Your task to perform on an android device: turn vacation reply on in the gmail app Image 0: 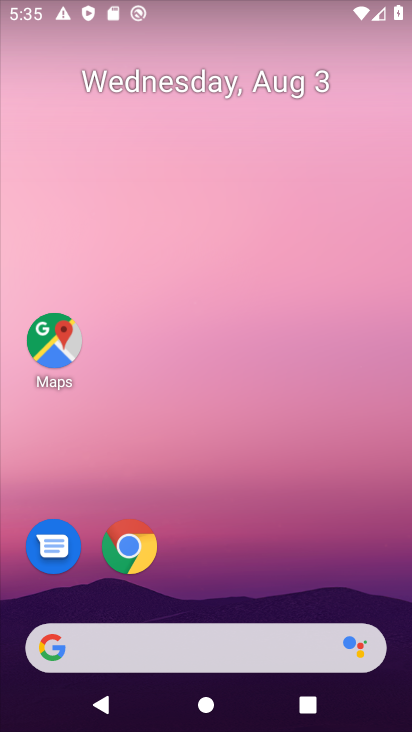
Step 0: press home button
Your task to perform on an android device: turn vacation reply on in the gmail app Image 1: 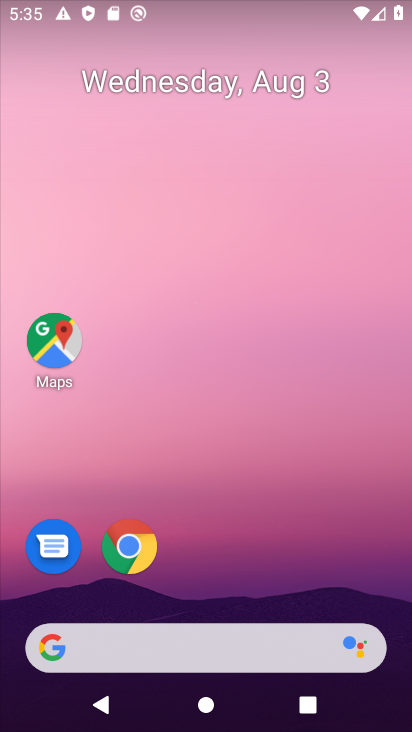
Step 1: drag from (305, 450) to (382, 56)
Your task to perform on an android device: turn vacation reply on in the gmail app Image 2: 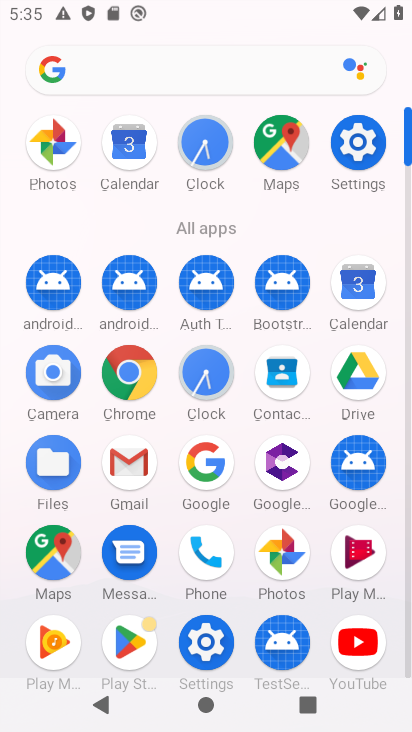
Step 2: click (121, 456)
Your task to perform on an android device: turn vacation reply on in the gmail app Image 3: 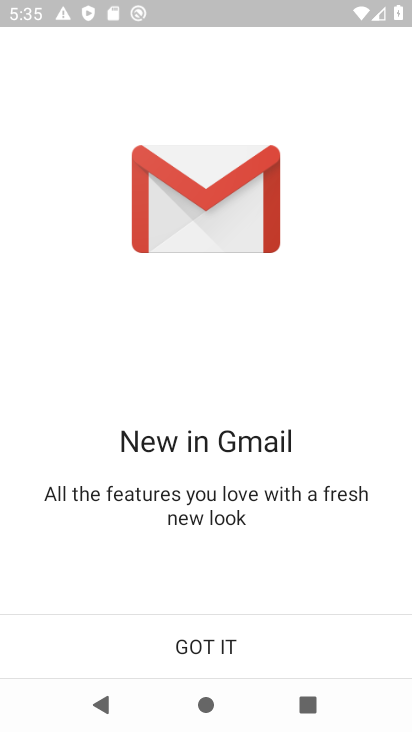
Step 3: click (152, 645)
Your task to perform on an android device: turn vacation reply on in the gmail app Image 4: 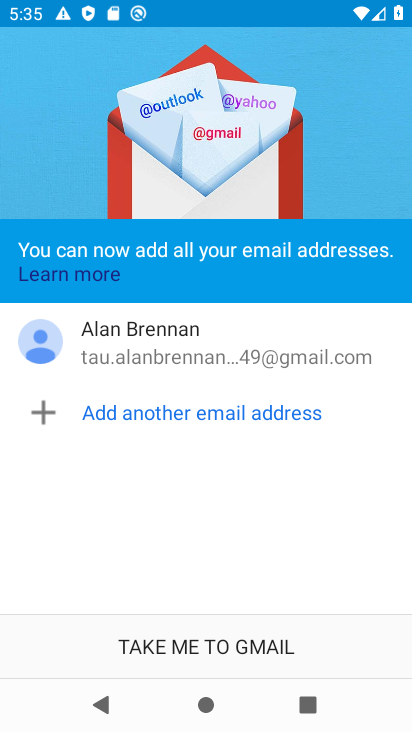
Step 4: click (152, 645)
Your task to perform on an android device: turn vacation reply on in the gmail app Image 5: 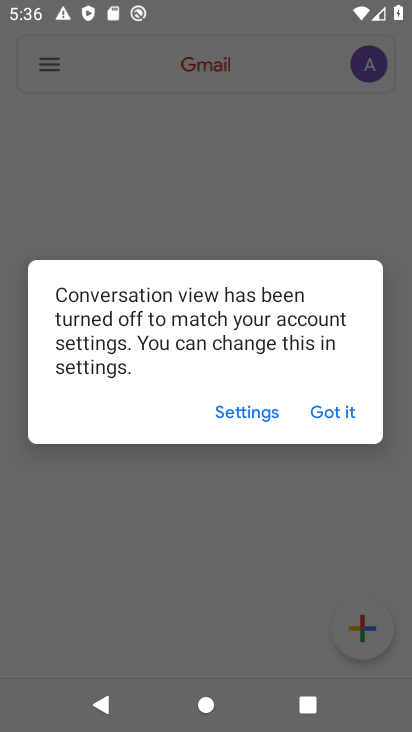
Step 5: click (348, 416)
Your task to perform on an android device: turn vacation reply on in the gmail app Image 6: 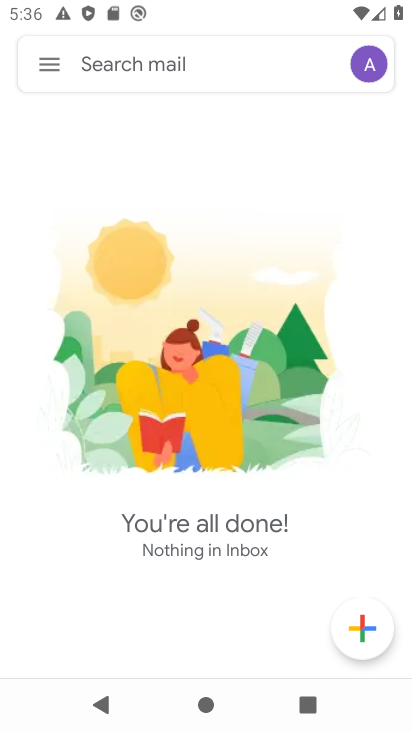
Step 6: click (40, 69)
Your task to perform on an android device: turn vacation reply on in the gmail app Image 7: 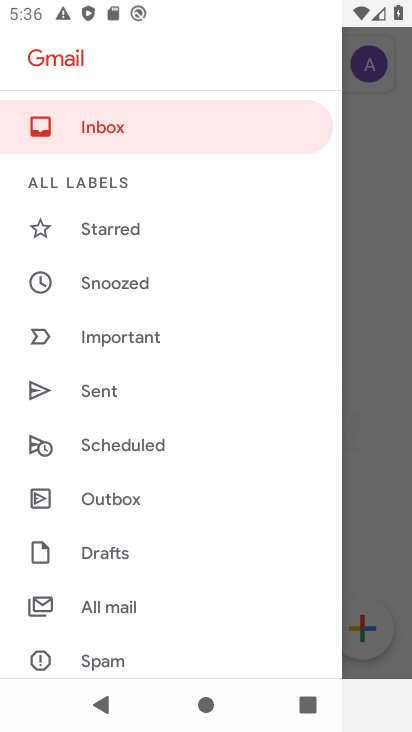
Step 7: drag from (208, 651) to (242, 475)
Your task to perform on an android device: turn vacation reply on in the gmail app Image 8: 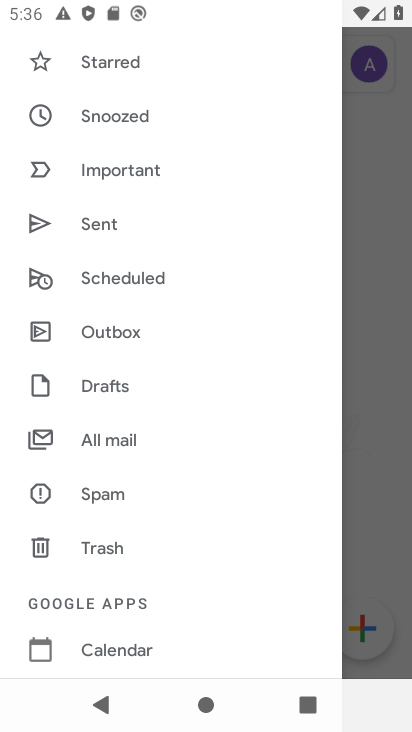
Step 8: drag from (202, 646) to (271, 233)
Your task to perform on an android device: turn vacation reply on in the gmail app Image 9: 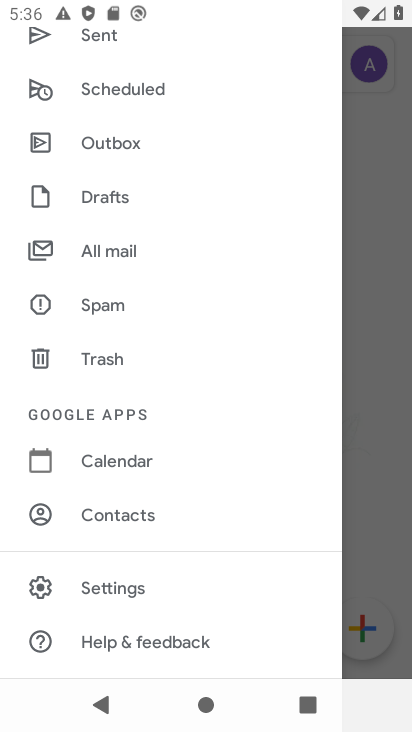
Step 9: click (93, 589)
Your task to perform on an android device: turn vacation reply on in the gmail app Image 10: 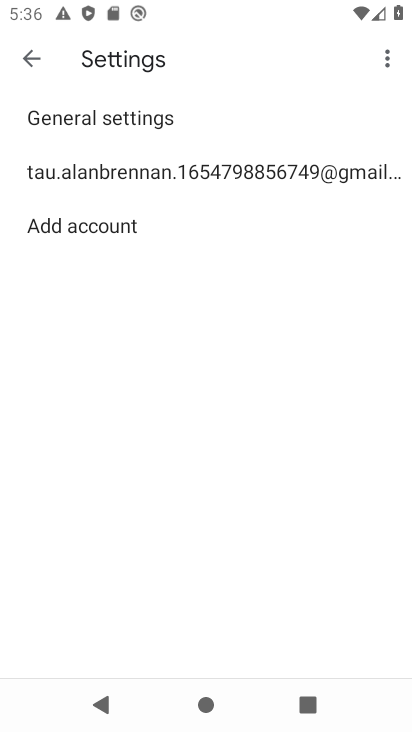
Step 10: click (186, 174)
Your task to perform on an android device: turn vacation reply on in the gmail app Image 11: 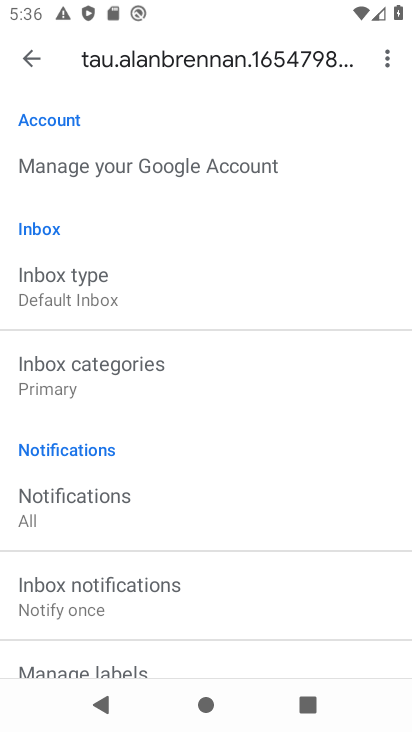
Step 11: drag from (288, 632) to (343, 168)
Your task to perform on an android device: turn vacation reply on in the gmail app Image 12: 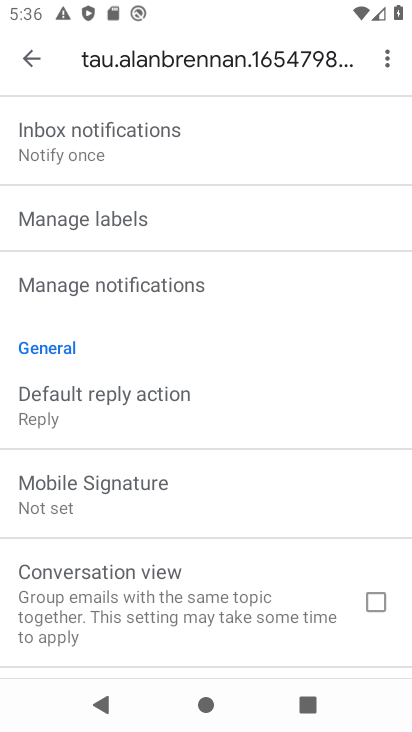
Step 12: drag from (231, 507) to (262, 246)
Your task to perform on an android device: turn vacation reply on in the gmail app Image 13: 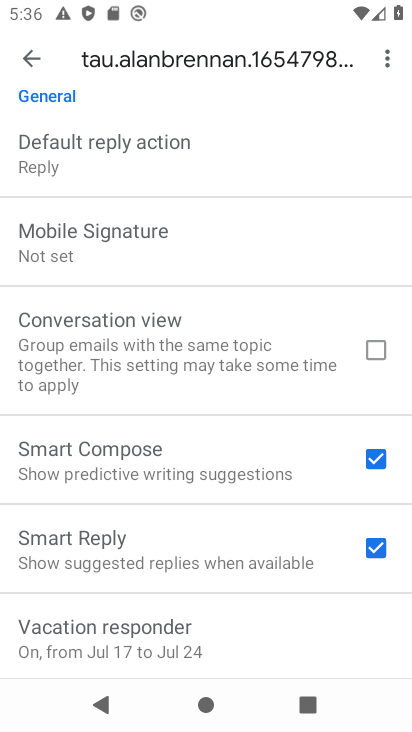
Step 13: click (125, 627)
Your task to perform on an android device: turn vacation reply on in the gmail app Image 14: 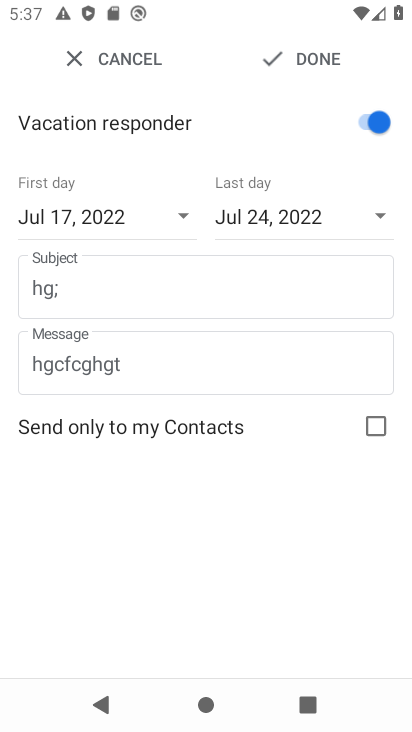
Step 14: task complete